Your task to perform on an android device: toggle airplane mode Image 0: 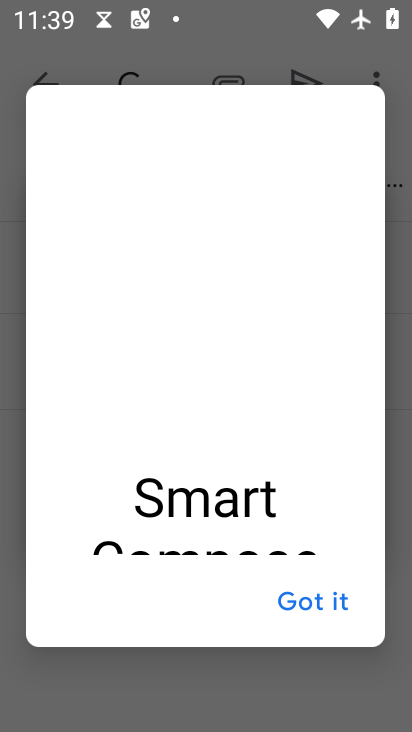
Step 0: press home button
Your task to perform on an android device: toggle airplane mode Image 1: 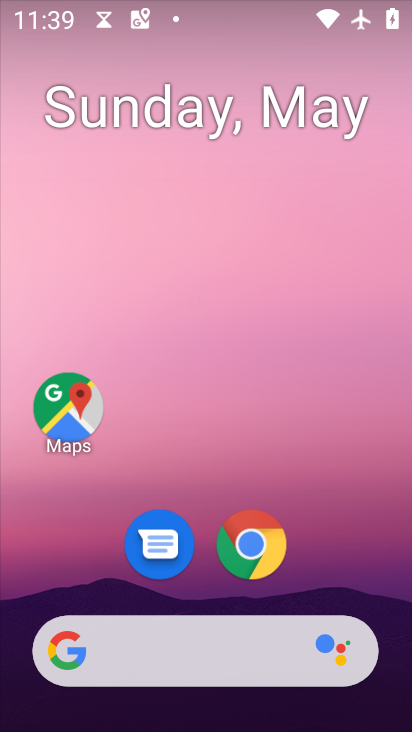
Step 1: drag from (318, 566) to (326, 211)
Your task to perform on an android device: toggle airplane mode Image 2: 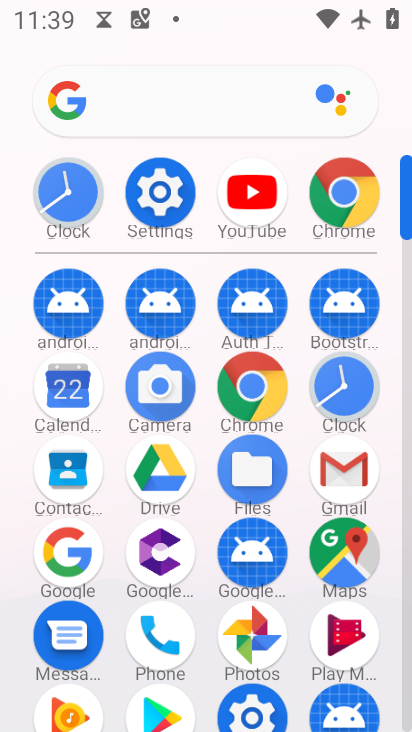
Step 2: click (131, 173)
Your task to perform on an android device: toggle airplane mode Image 3: 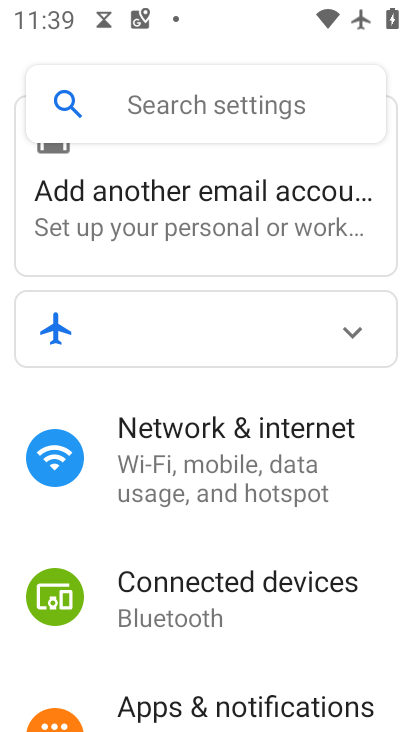
Step 3: click (186, 471)
Your task to perform on an android device: toggle airplane mode Image 4: 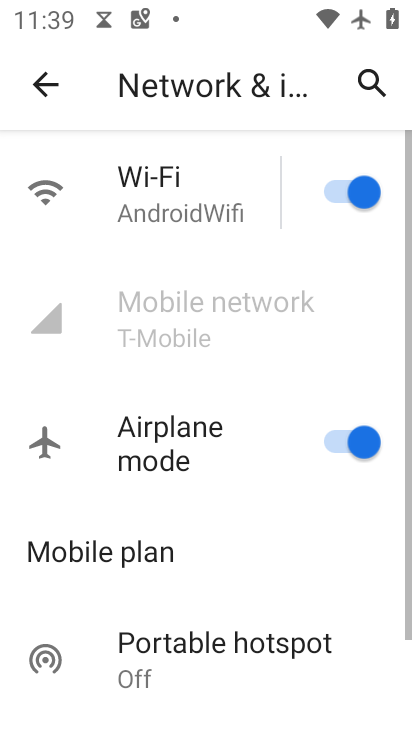
Step 4: click (327, 435)
Your task to perform on an android device: toggle airplane mode Image 5: 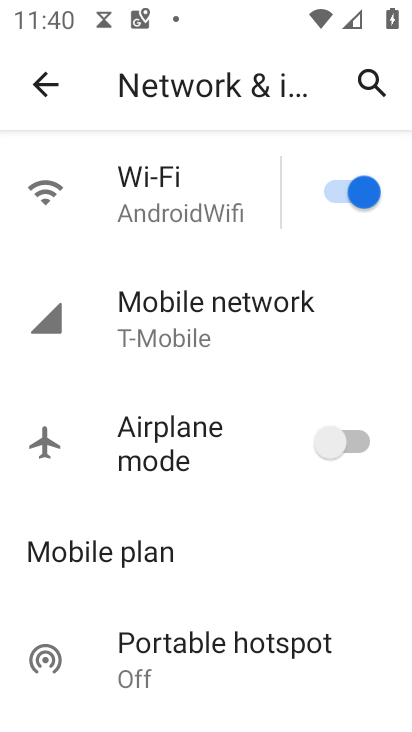
Step 5: task complete